Your task to perform on an android device: Look up the best rated power drills on Lowes.com Image 0: 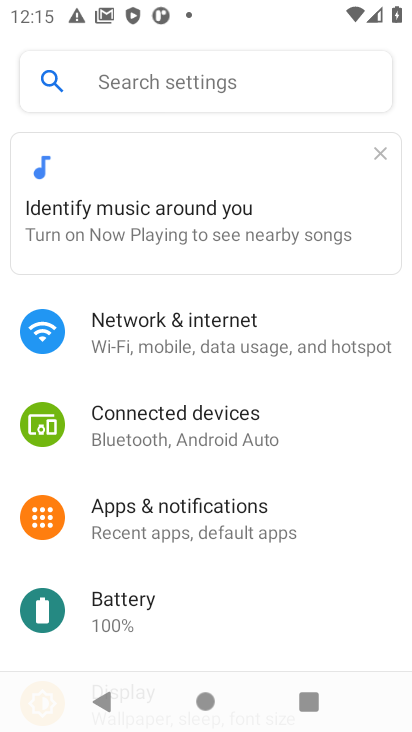
Step 0: press home button
Your task to perform on an android device: Look up the best rated power drills on Lowes.com Image 1: 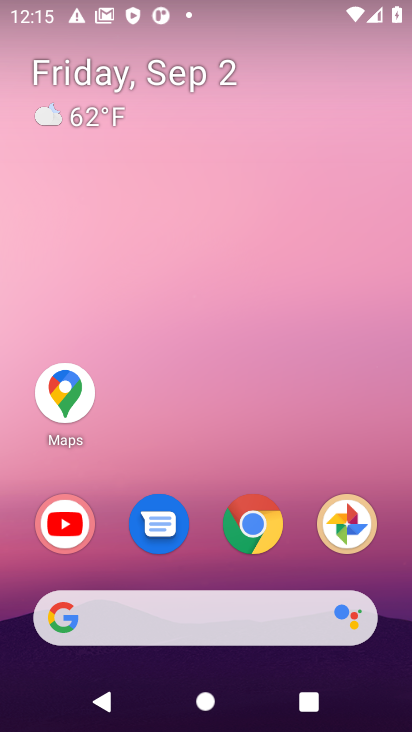
Step 1: click (254, 528)
Your task to perform on an android device: Look up the best rated power drills on Lowes.com Image 2: 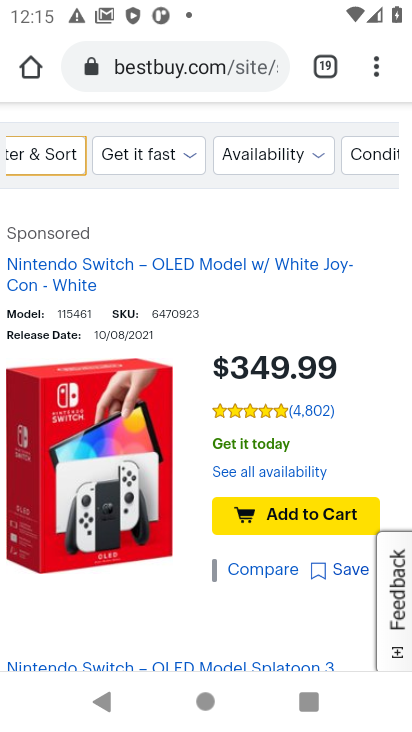
Step 2: click (322, 72)
Your task to perform on an android device: Look up the best rated power drills on Lowes.com Image 3: 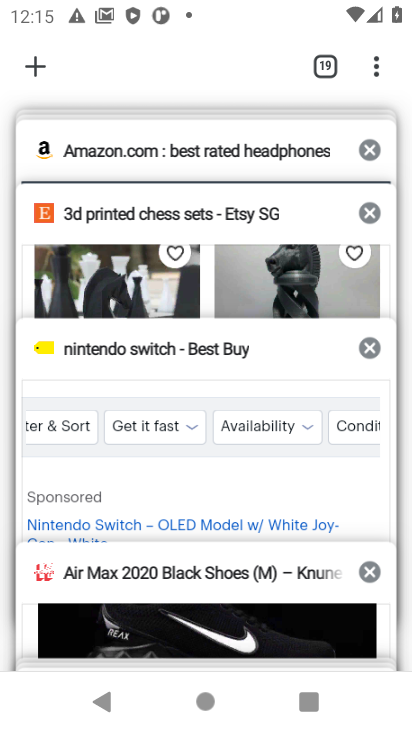
Step 3: drag from (96, 215) to (84, 65)
Your task to perform on an android device: Look up the best rated power drills on Lowes.com Image 4: 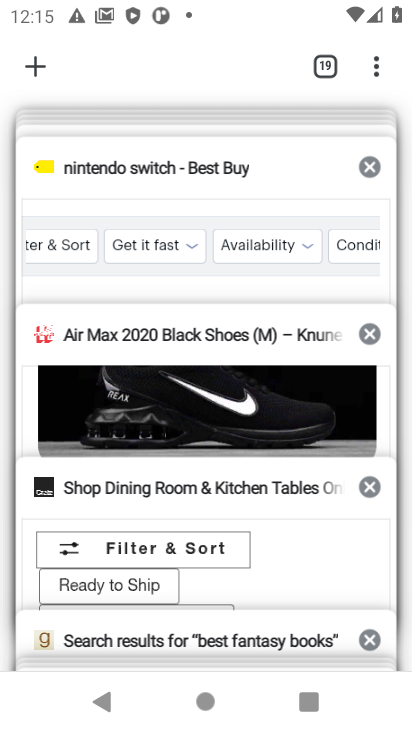
Step 4: drag from (164, 633) to (117, 116)
Your task to perform on an android device: Look up the best rated power drills on Lowes.com Image 5: 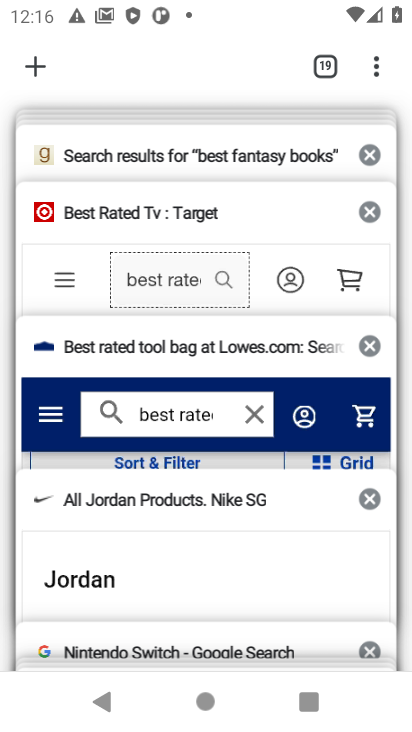
Step 5: click (168, 340)
Your task to perform on an android device: Look up the best rated power drills on Lowes.com Image 6: 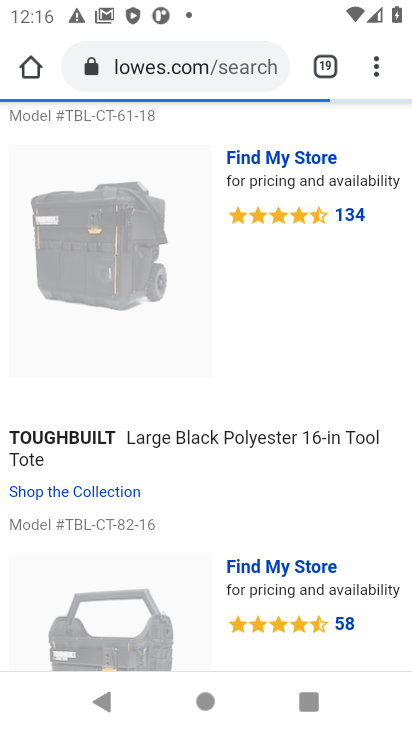
Step 6: drag from (236, 153) to (291, 557)
Your task to perform on an android device: Look up the best rated power drills on Lowes.com Image 7: 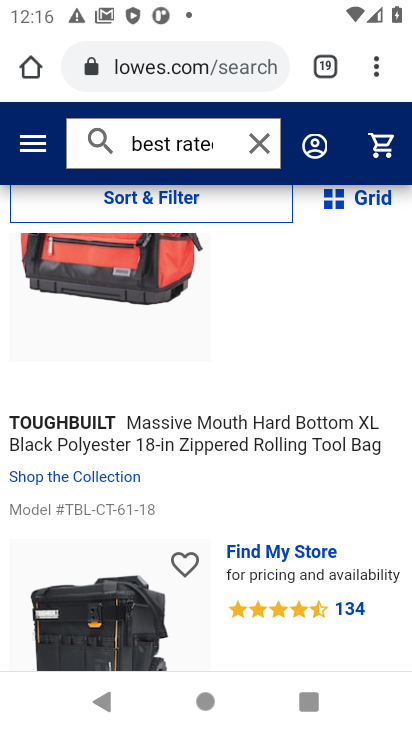
Step 7: click (256, 148)
Your task to perform on an android device: Look up the best rated power drills on Lowes.com Image 8: 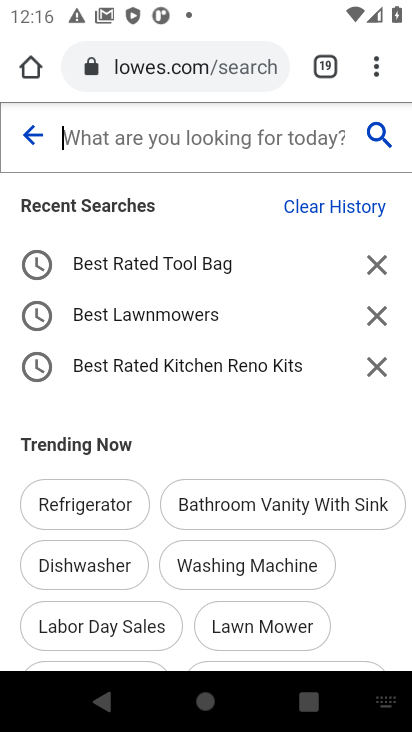
Step 8: type "best rated power drills"
Your task to perform on an android device: Look up the best rated power drills on Lowes.com Image 9: 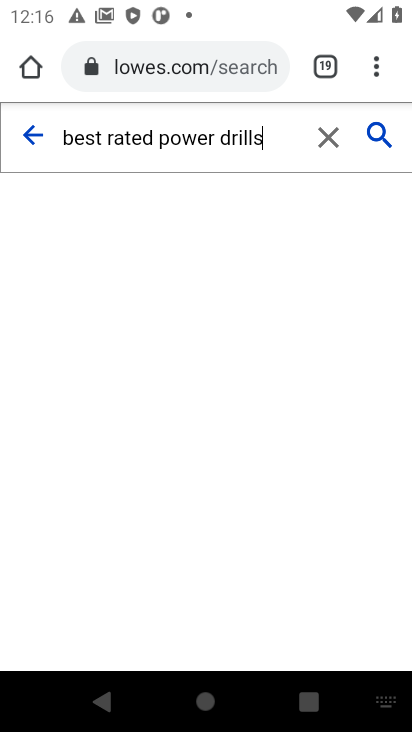
Step 9: click (379, 136)
Your task to perform on an android device: Look up the best rated power drills on Lowes.com Image 10: 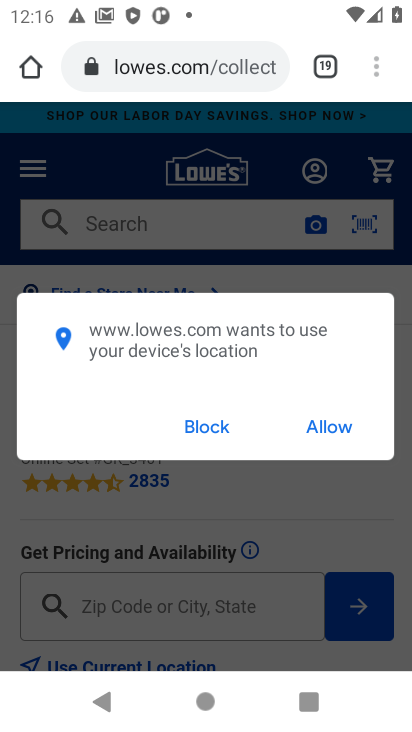
Step 10: drag from (278, 521) to (240, 186)
Your task to perform on an android device: Look up the best rated power drills on Lowes.com Image 11: 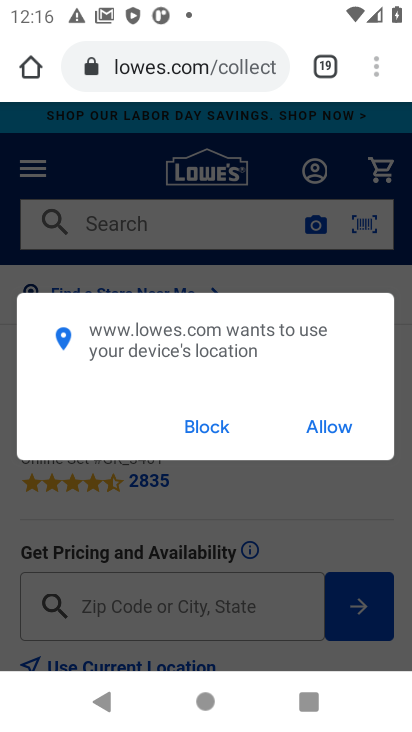
Step 11: click (204, 434)
Your task to perform on an android device: Look up the best rated power drills on Lowes.com Image 12: 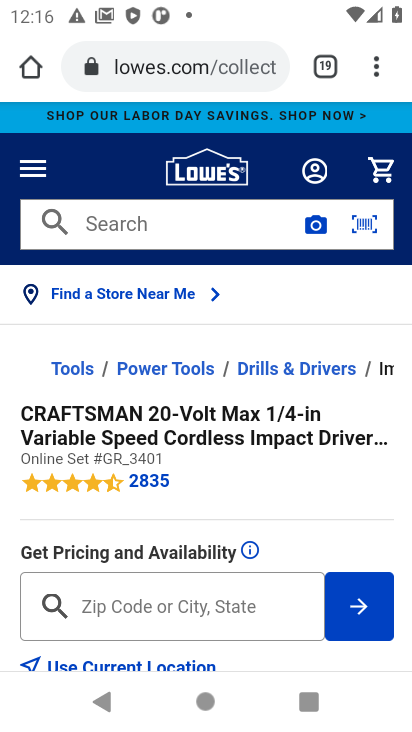
Step 12: task complete